Your task to perform on an android device: turn notification dots on Image 0: 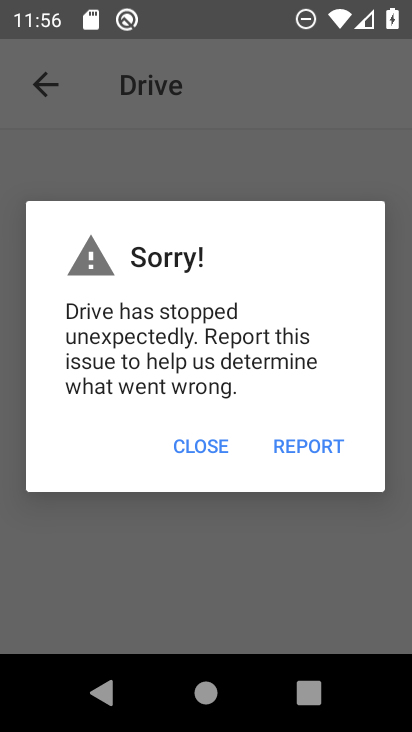
Step 0: press home button
Your task to perform on an android device: turn notification dots on Image 1: 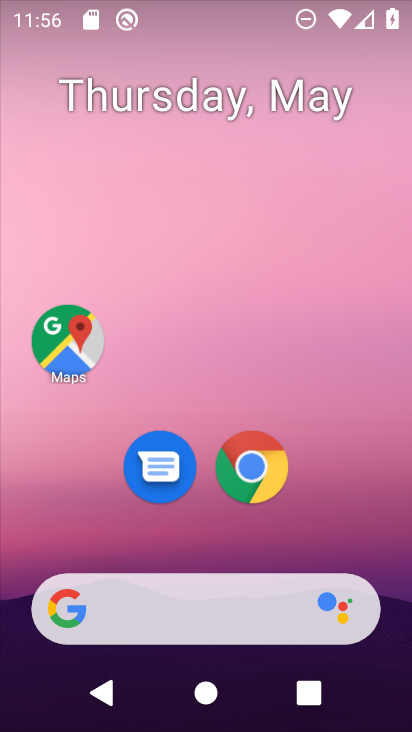
Step 1: drag from (185, 541) to (259, 156)
Your task to perform on an android device: turn notification dots on Image 2: 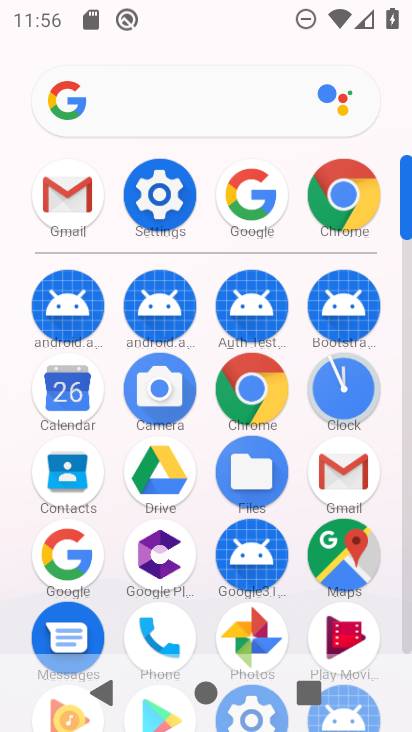
Step 2: click (180, 205)
Your task to perform on an android device: turn notification dots on Image 3: 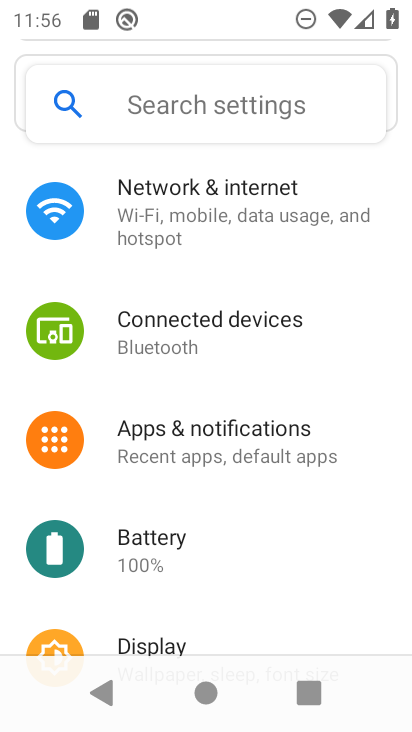
Step 3: click (189, 441)
Your task to perform on an android device: turn notification dots on Image 4: 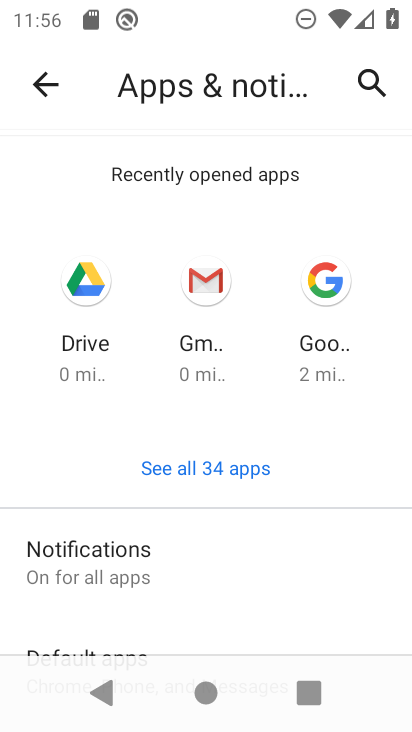
Step 4: drag from (191, 571) to (252, 271)
Your task to perform on an android device: turn notification dots on Image 5: 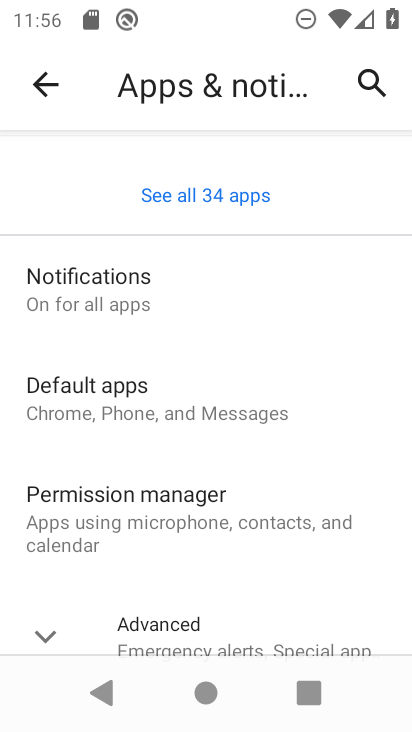
Step 5: click (238, 290)
Your task to perform on an android device: turn notification dots on Image 6: 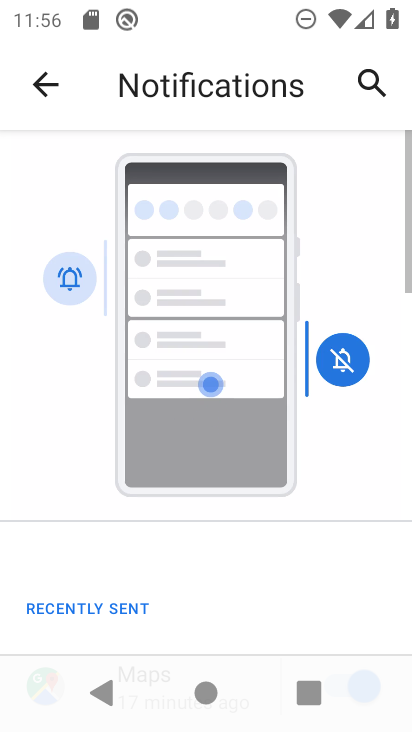
Step 6: drag from (258, 581) to (298, 169)
Your task to perform on an android device: turn notification dots on Image 7: 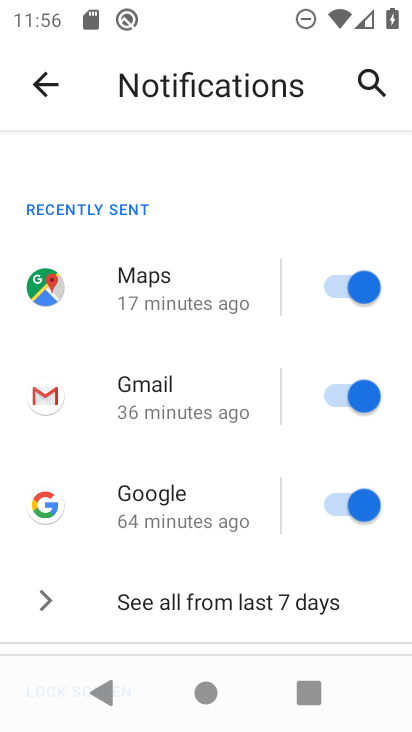
Step 7: drag from (253, 494) to (312, 128)
Your task to perform on an android device: turn notification dots on Image 8: 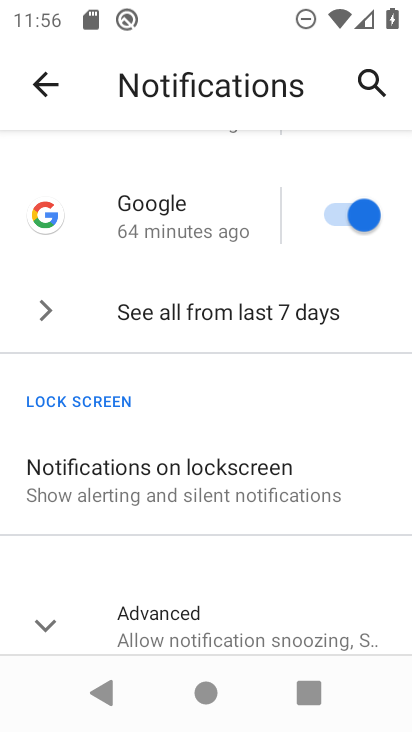
Step 8: drag from (243, 499) to (331, 183)
Your task to perform on an android device: turn notification dots on Image 9: 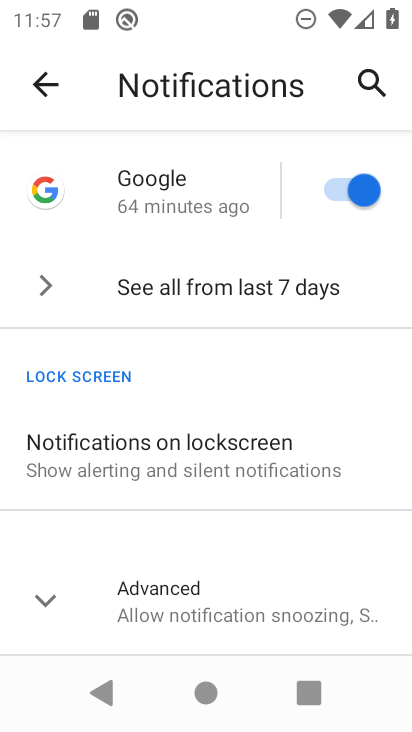
Step 9: drag from (299, 584) to (295, 342)
Your task to perform on an android device: turn notification dots on Image 10: 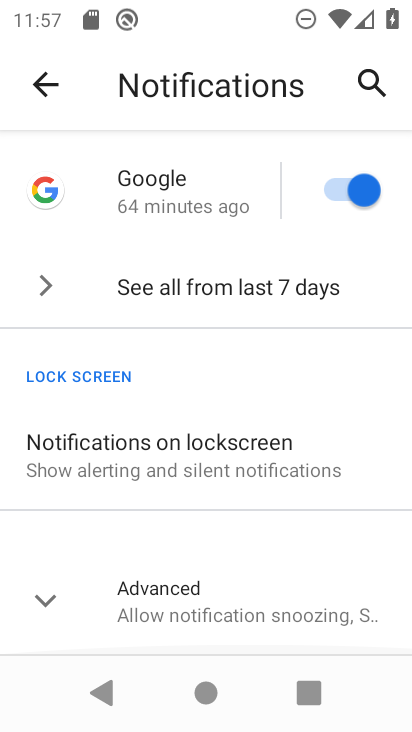
Step 10: click (292, 583)
Your task to perform on an android device: turn notification dots on Image 11: 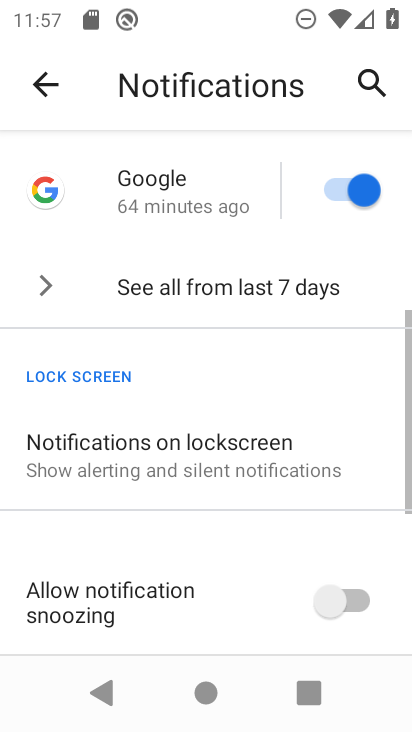
Step 11: drag from (196, 680) to (226, 152)
Your task to perform on an android device: turn notification dots on Image 12: 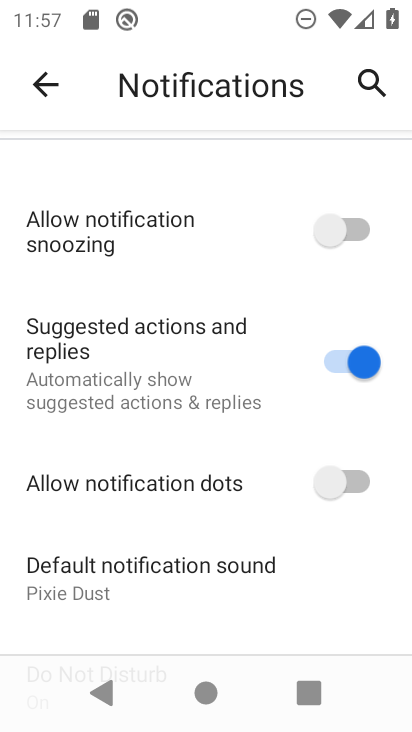
Step 12: click (346, 470)
Your task to perform on an android device: turn notification dots on Image 13: 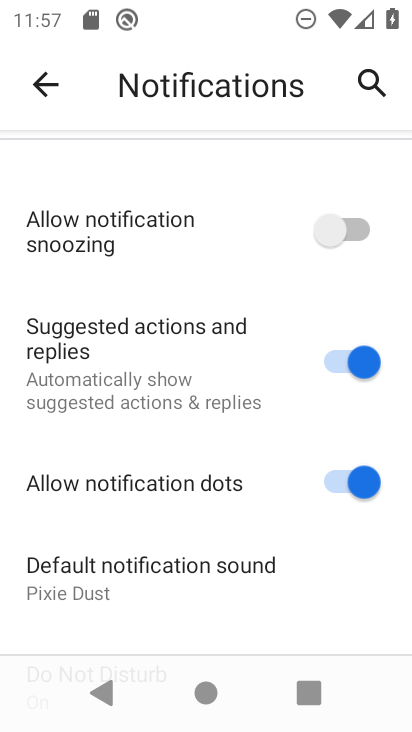
Step 13: task complete